Your task to perform on an android device: Open Google Image 0: 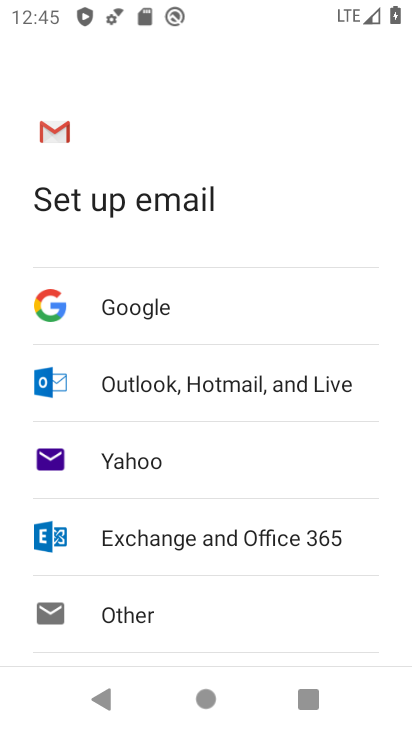
Step 0: press home button
Your task to perform on an android device: Open Google Image 1: 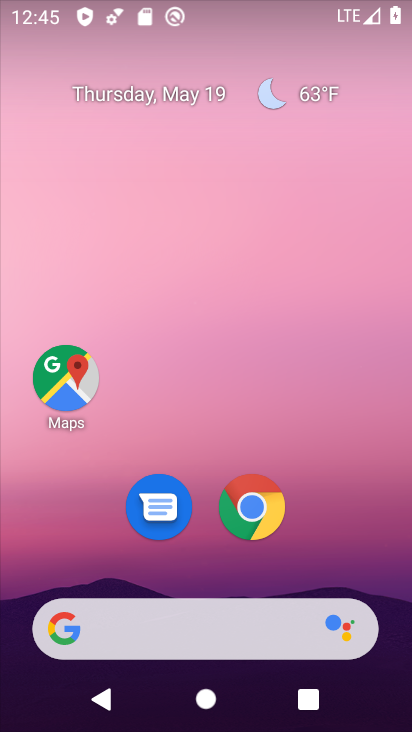
Step 1: drag from (162, 590) to (207, 234)
Your task to perform on an android device: Open Google Image 2: 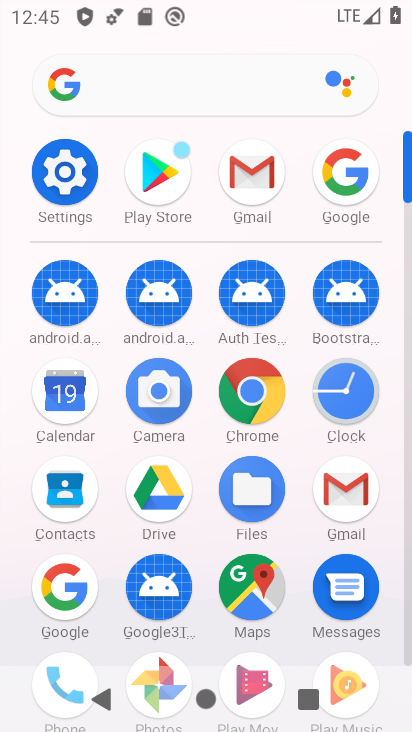
Step 2: click (80, 585)
Your task to perform on an android device: Open Google Image 3: 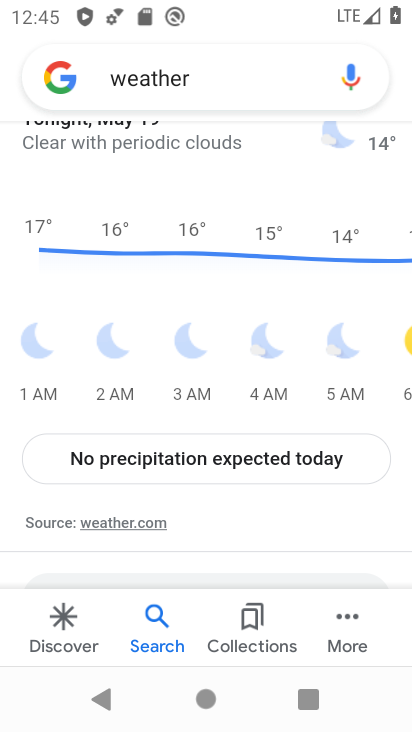
Step 3: drag from (229, 504) to (226, 200)
Your task to perform on an android device: Open Google Image 4: 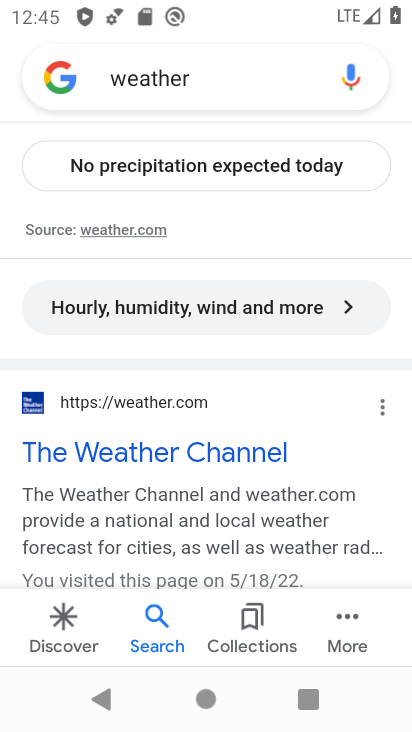
Step 4: drag from (187, 534) to (259, 229)
Your task to perform on an android device: Open Google Image 5: 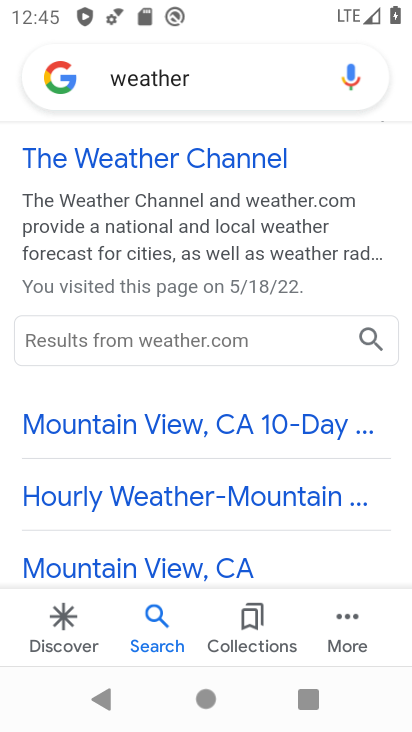
Step 5: click (229, 80)
Your task to perform on an android device: Open Google Image 6: 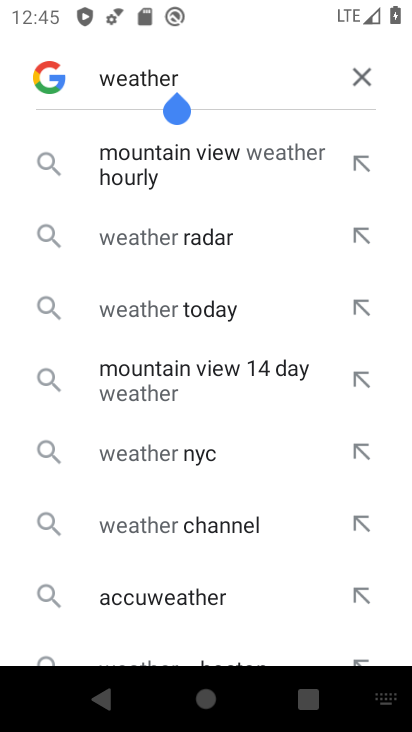
Step 6: click (373, 85)
Your task to perform on an android device: Open Google Image 7: 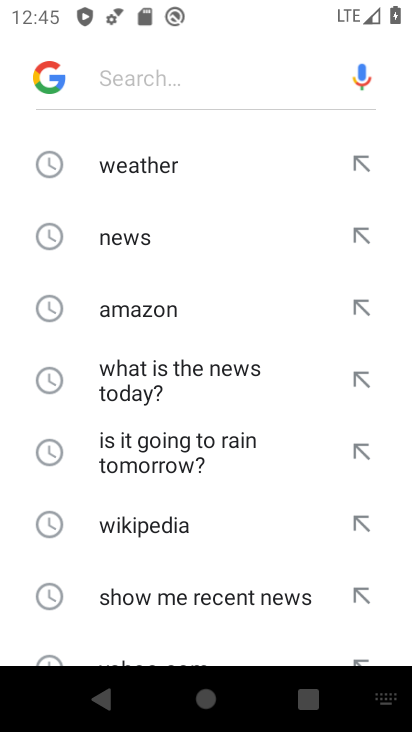
Step 7: task complete